Your task to perform on an android device: stop showing notifications on the lock screen Image 0: 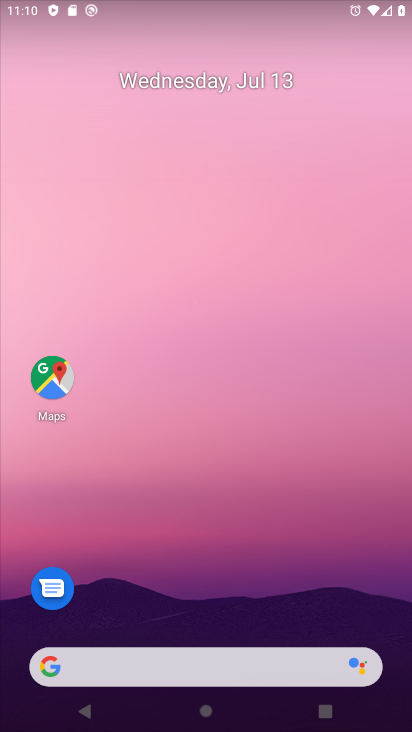
Step 0: drag from (249, 692) to (271, 147)
Your task to perform on an android device: stop showing notifications on the lock screen Image 1: 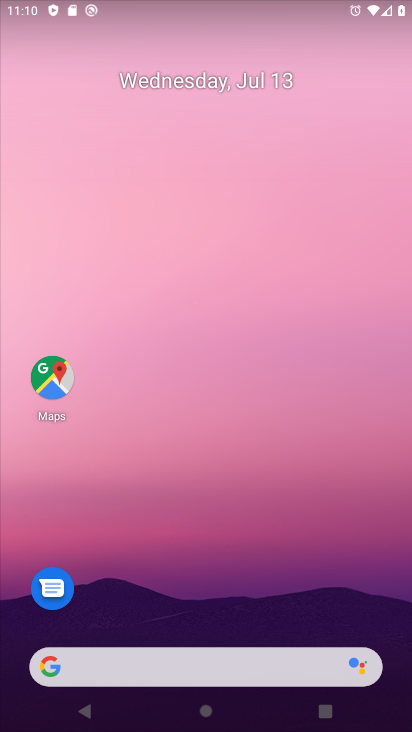
Step 1: drag from (266, 717) to (249, 158)
Your task to perform on an android device: stop showing notifications on the lock screen Image 2: 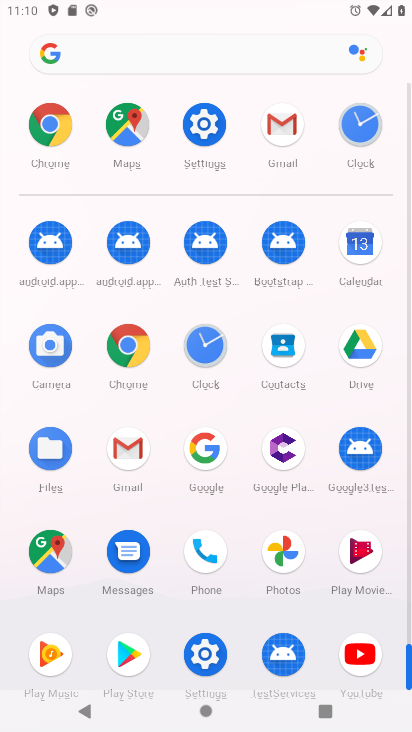
Step 2: click (193, 118)
Your task to perform on an android device: stop showing notifications on the lock screen Image 3: 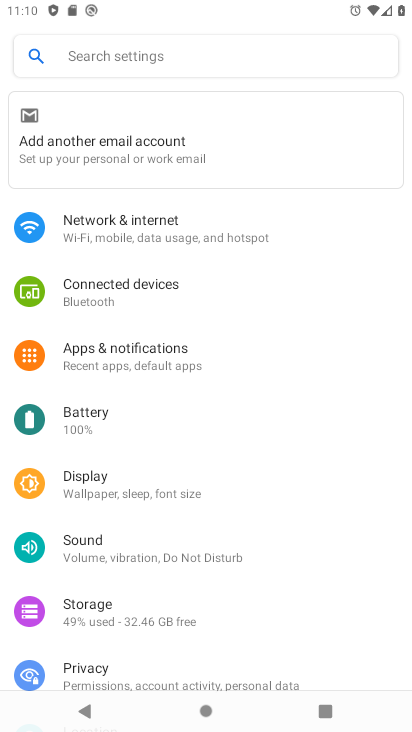
Step 3: click (195, 352)
Your task to perform on an android device: stop showing notifications on the lock screen Image 4: 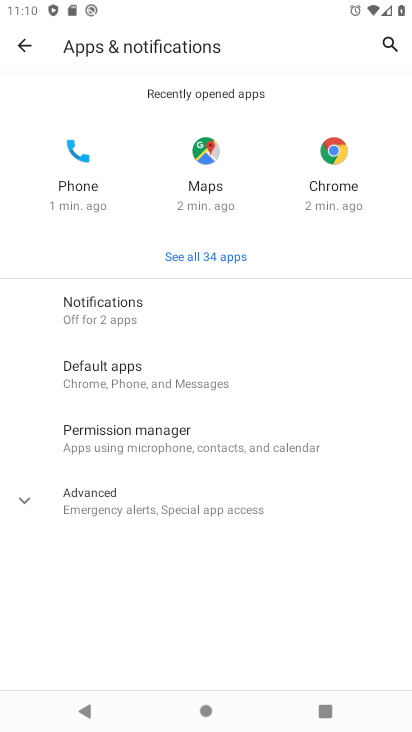
Step 4: click (147, 317)
Your task to perform on an android device: stop showing notifications on the lock screen Image 5: 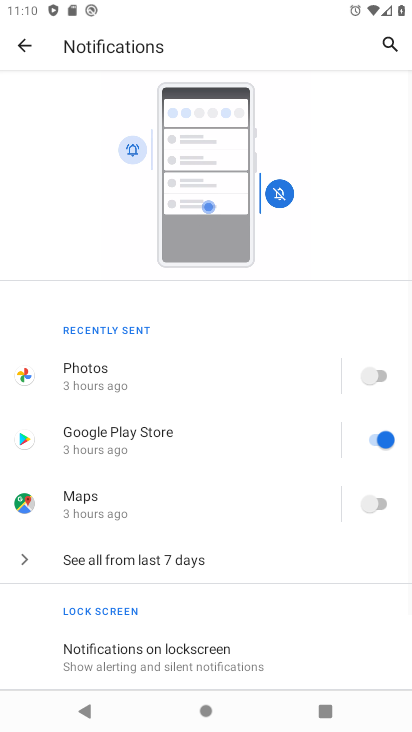
Step 5: click (178, 661)
Your task to perform on an android device: stop showing notifications on the lock screen Image 6: 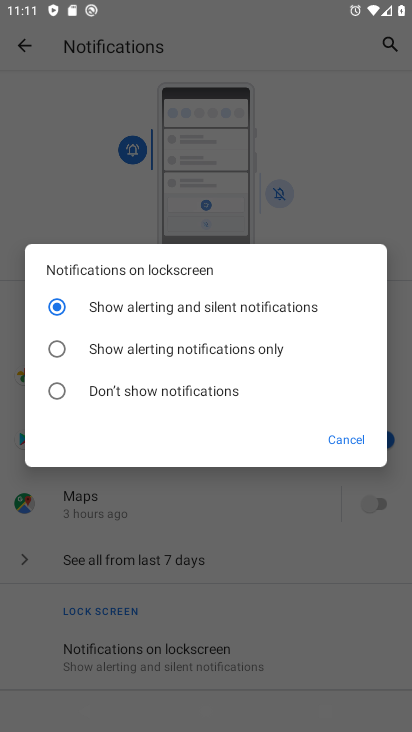
Step 6: click (109, 391)
Your task to perform on an android device: stop showing notifications on the lock screen Image 7: 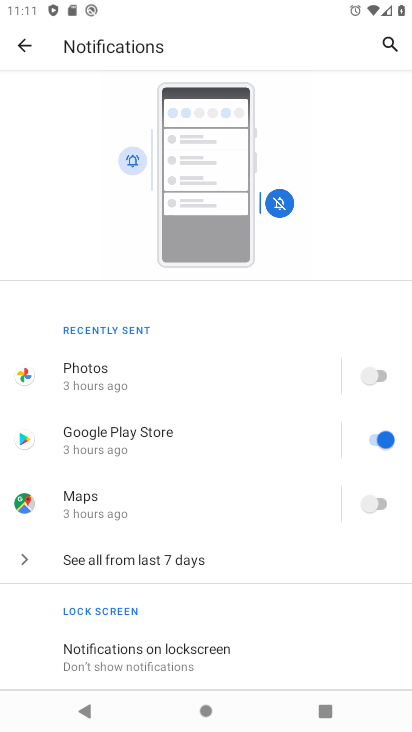
Step 7: task complete